Your task to perform on an android device: Search for vegetarian restaurants on Maps Image 0: 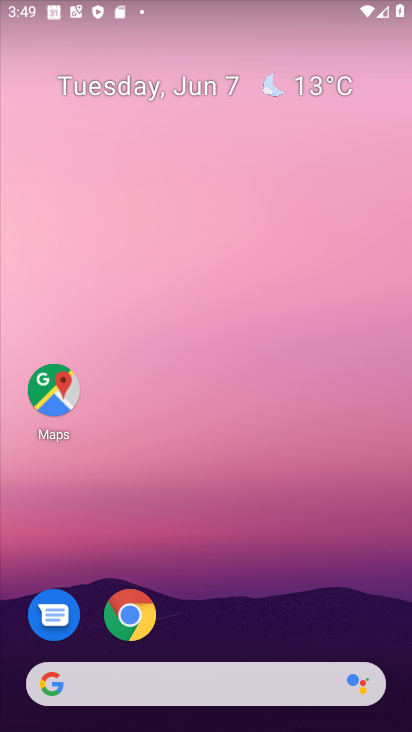
Step 0: click (208, 175)
Your task to perform on an android device: Search for vegetarian restaurants on Maps Image 1: 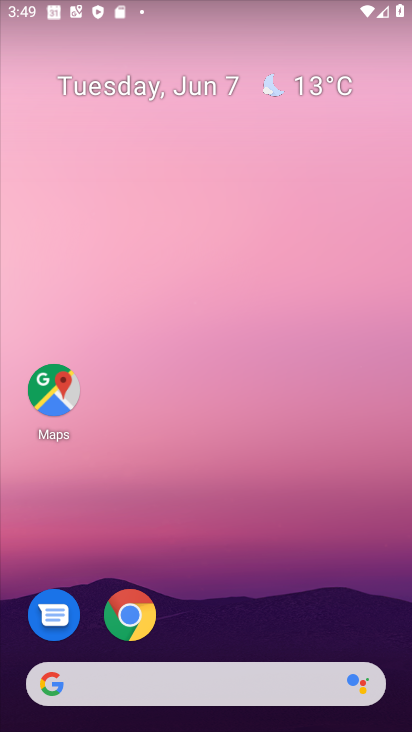
Step 1: drag from (214, 645) to (213, 331)
Your task to perform on an android device: Search for vegetarian restaurants on Maps Image 2: 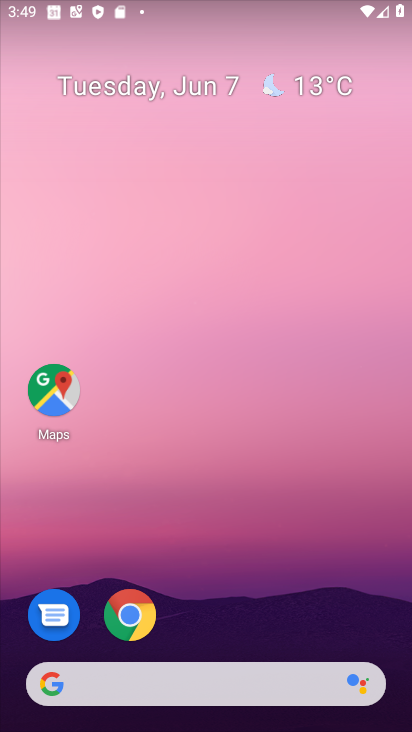
Step 2: drag from (203, 516) to (154, 165)
Your task to perform on an android device: Search for vegetarian restaurants on Maps Image 3: 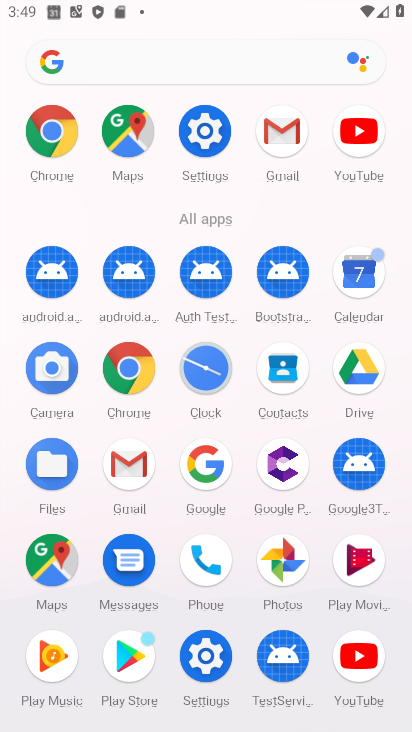
Step 3: click (131, 138)
Your task to perform on an android device: Search for vegetarian restaurants on Maps Image 4: 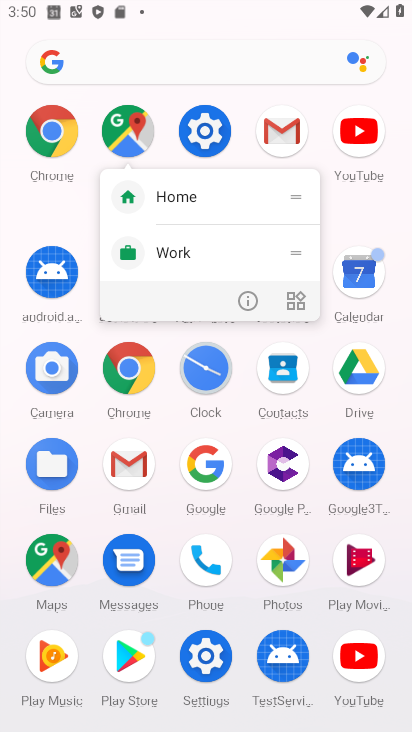
Step 4: click (126, 118)
Your task to perform on an android device: Search for vegetarian restaurants on Maps Image 5: 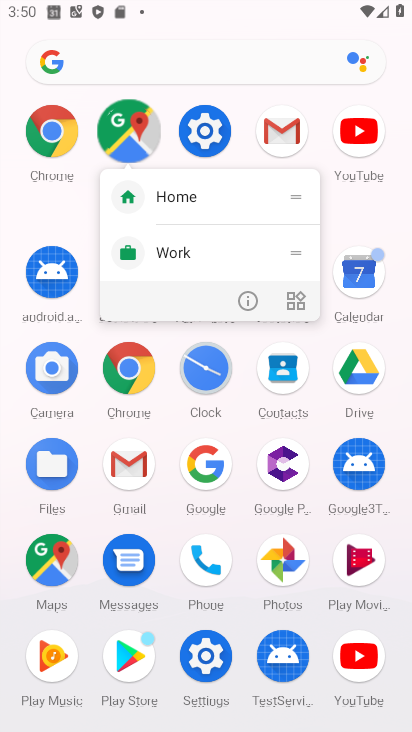
Step 5: click (126, 118)
Your task to perform on an android device: Search for vegetarian restaurants on Maps Image 6: 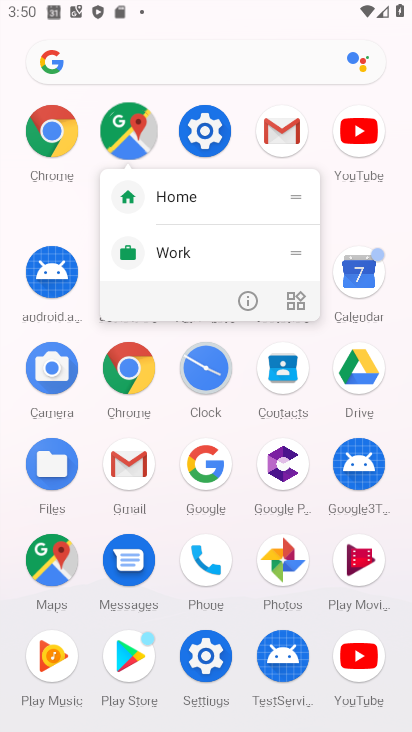
Step 6: click (126, 118)
Your task to perform on an android device: Search for vegetarian restaurants on Maps Image 7: 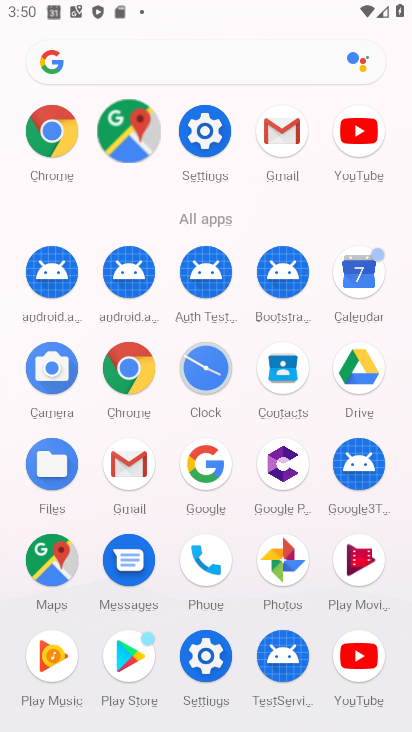
Step 7: click (123, 123)
Your task to perform on an android device: Search for vegetarian restaurants on Maps Image 8: 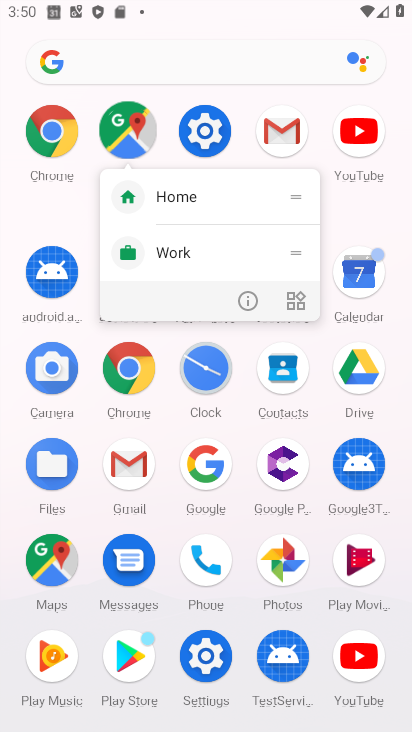
Step 8: click (103, 140)
Your task to perform on an android device: Search for vegetarian restaurants on Maps Image 9: 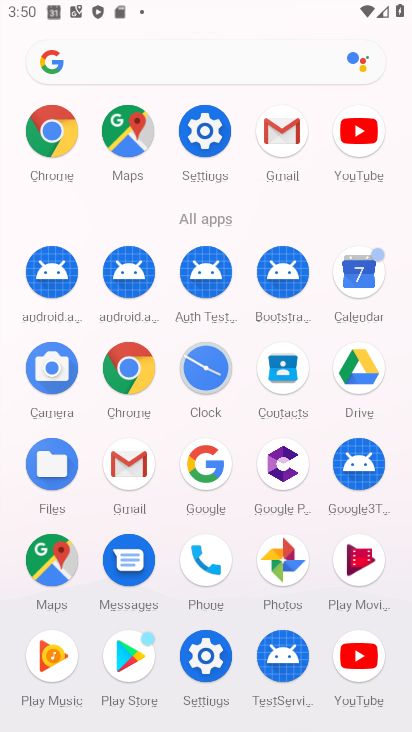
Step 9: click (116, 146)
Your task to perform on an android device: Search for vegetarian restaurants on Maps Image 10: 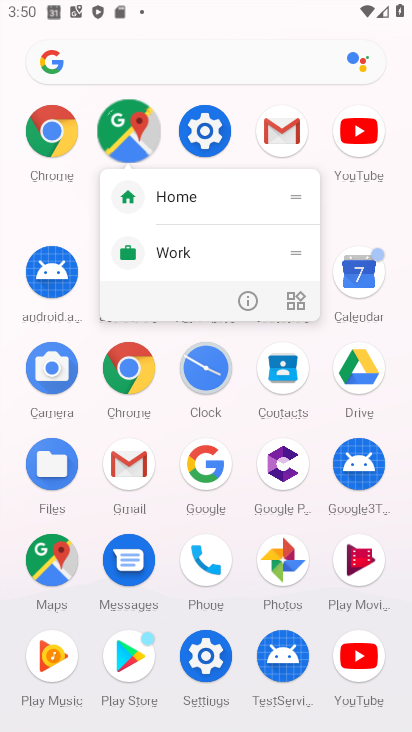
Step 10: click (115, 147)
Your task to perform on an android device: Search for vegetarian restaurants on Maps Image 11: 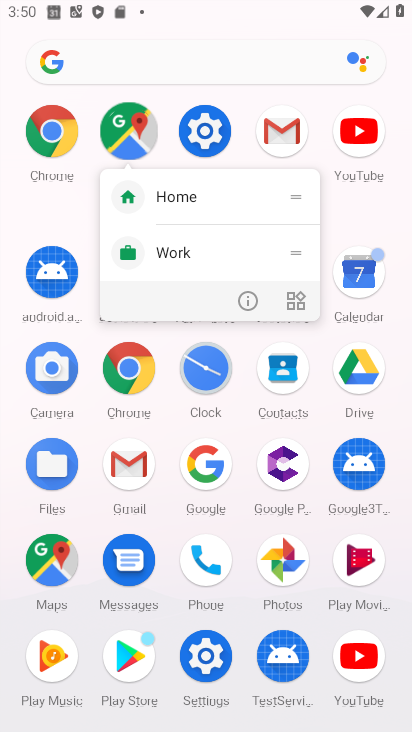
Step 11: click (111, 147)
Your task to perform on an android device: Search for vegetarian restaurants on Maps Image 12: 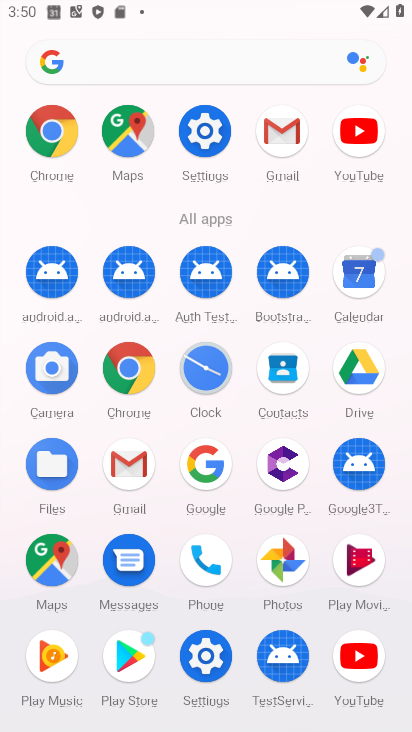
Step 12: click (111, 147)
Your task to perform on an android device: Search for vegetarian restaurants on Maps Image 13: 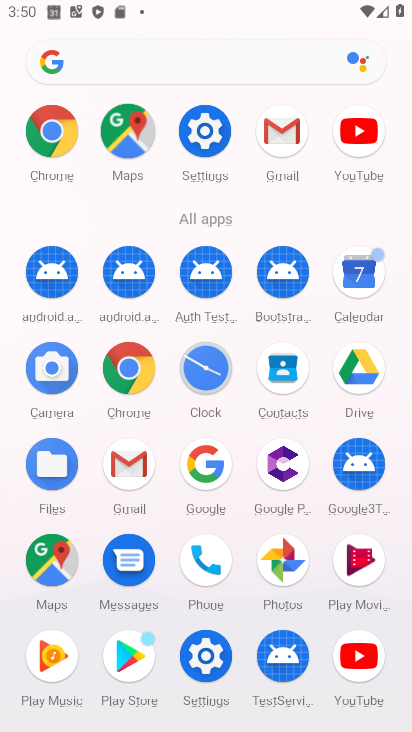
Step 13: click (107, 149)
Your task to perform on an android device: Search for vegetarian restaurants on Maps Image 14: 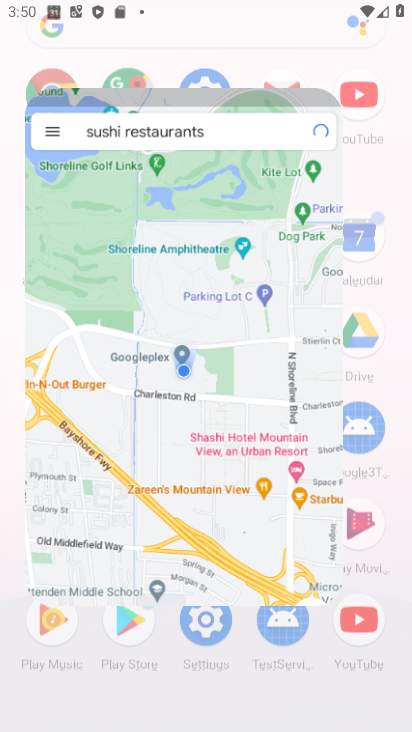
Step 14: click (107, 149)
Your task to perform on an android device: Search for vegetarian restaurants on Maps Image 15: 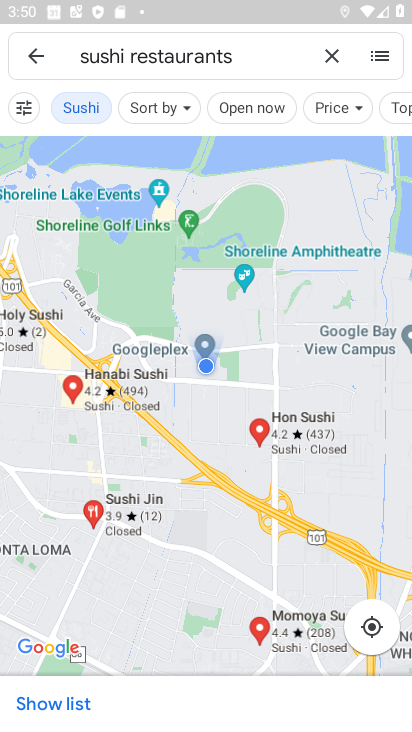
Step 15: click (330, 50)
Your task to perform on an android device: Search for vegetarian restaurants on Maps Image 16: 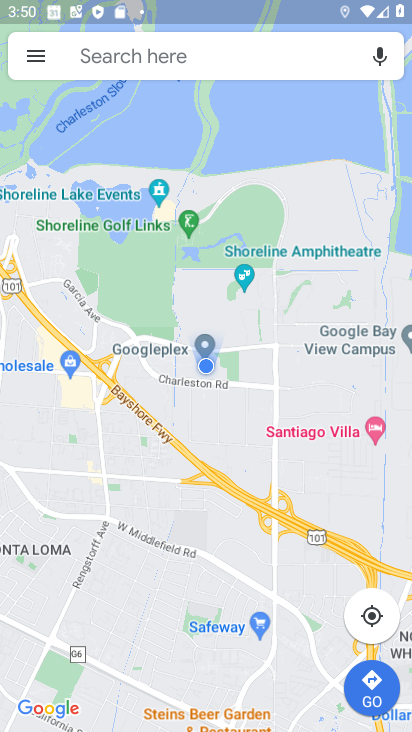
Step 16: click (84, 58)
Your task to perform on an android device: Search for vegetarian restaurants on Maps Image 17: 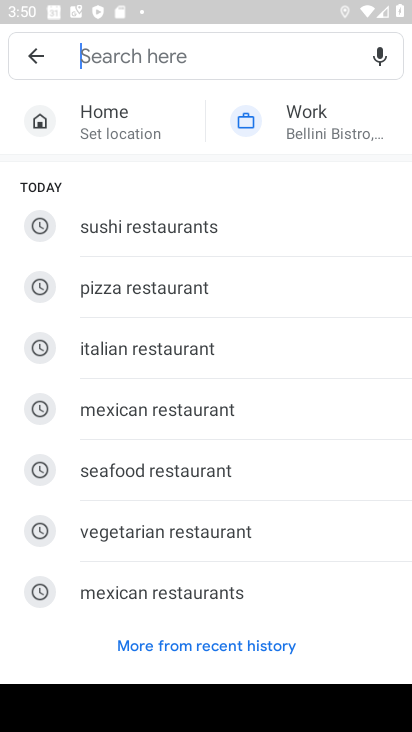
Step 17: type "vegetarian restaurants"
Your task to perform on an android device: Search for vegetarian restaurants on Maps Image 18: 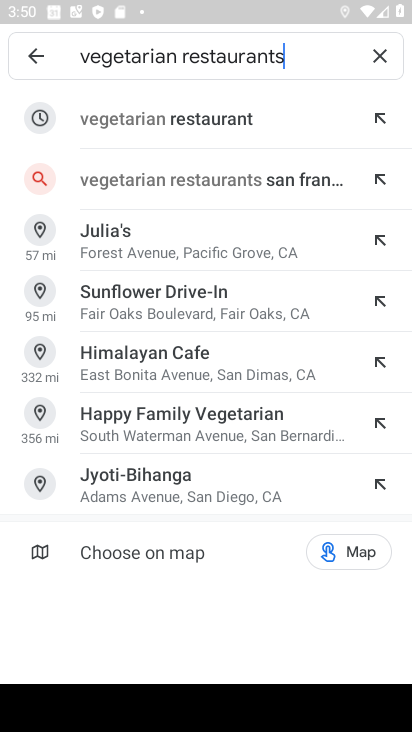
Step 18: click (200, 135)
Your task to perform on an android device: Search for vegetarian restaurants on Maps Image 19: 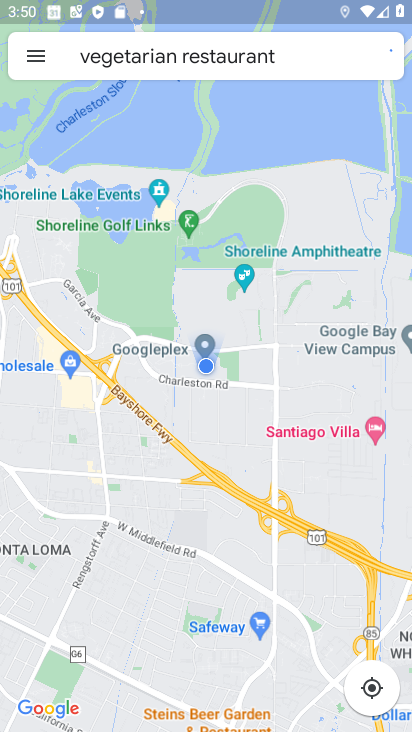
Step 19: task complete